Your task to perform on an android device: turn notification dots on Image 0: 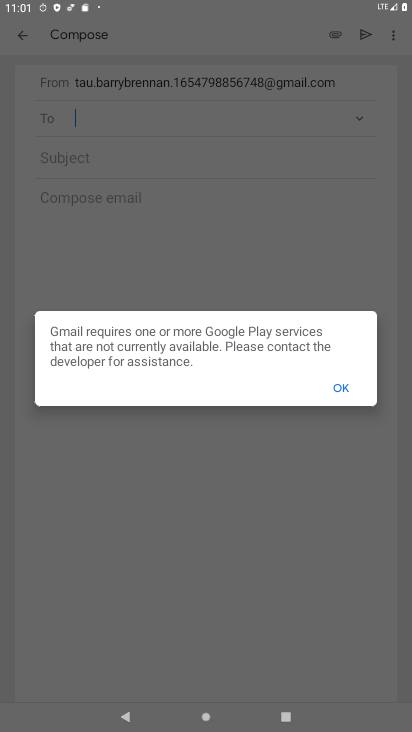
Step 0: click (342, 385)
Your task to perform on an android device: turn notification dots on Image 1: 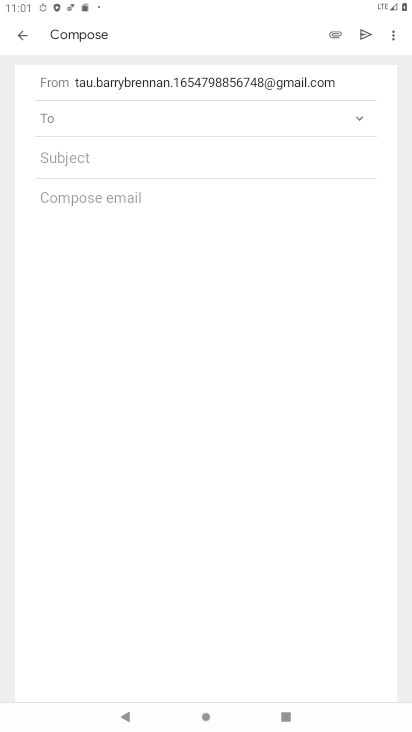
Step 1: click (15, 23)
Your task to perform on an android device: turn notification dots on Image 2: 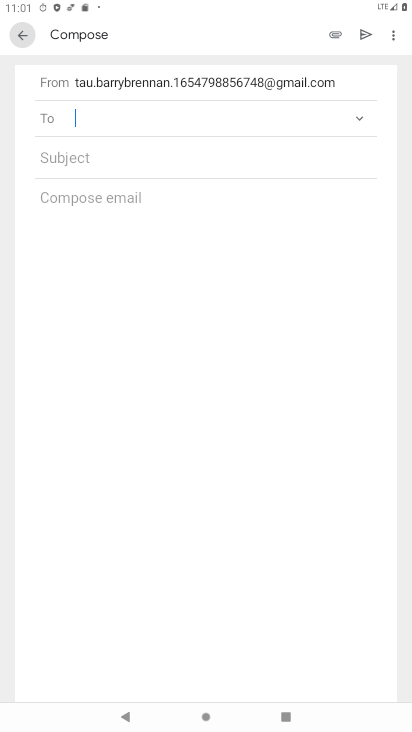
Step 2: click (36, 27)
Your task to perform on an android device: turn notification dots on Image 3: 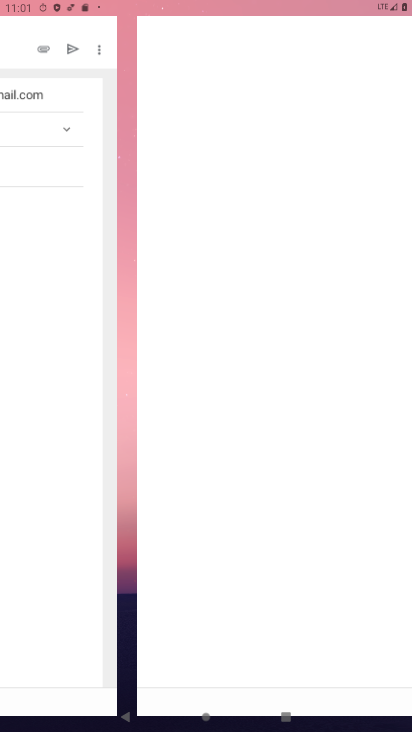
Step 3: click (24, 25)
Your task to perform on an android device: turn notification dots on Image 4: 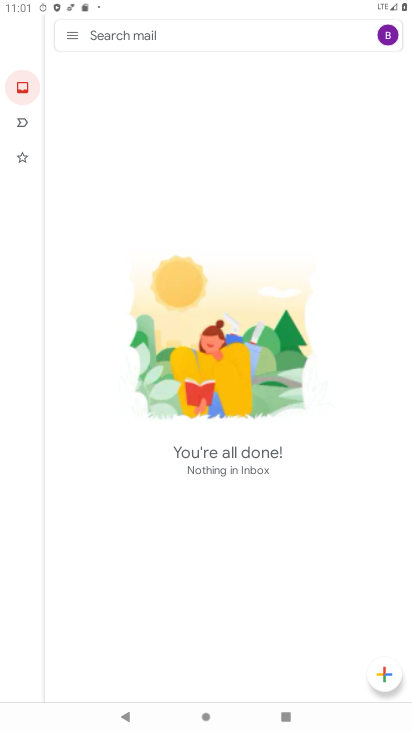
Step 4: press back button
Your task to perform on an android device: turn notification dots on Image 5: 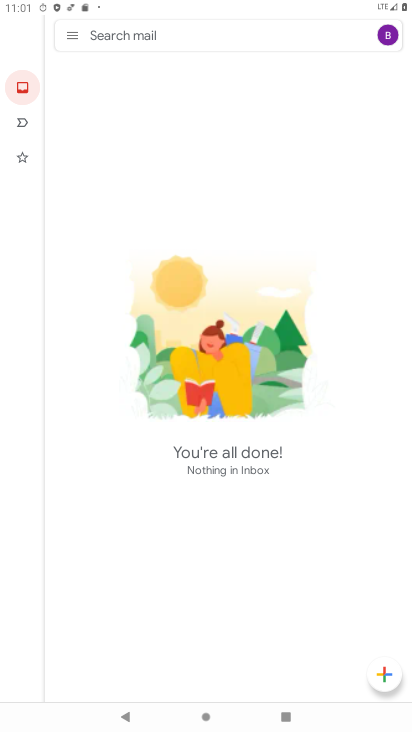
Step 5: press back button
Your task to perform on an android device: turn notification dots on Image 6: 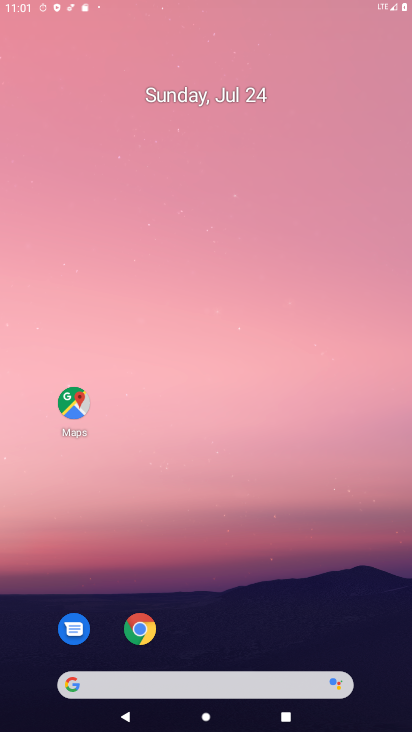
Step 6: press back button
Your task to perform on an android device: turn notification dots on Image 7: 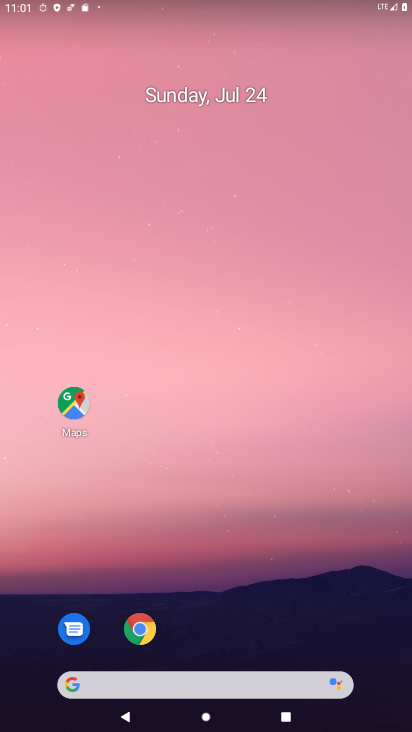
Step 7: drag from (217, 519) to (207, 64)
Your task to perform on an android device: turn notification dots on Image 8: 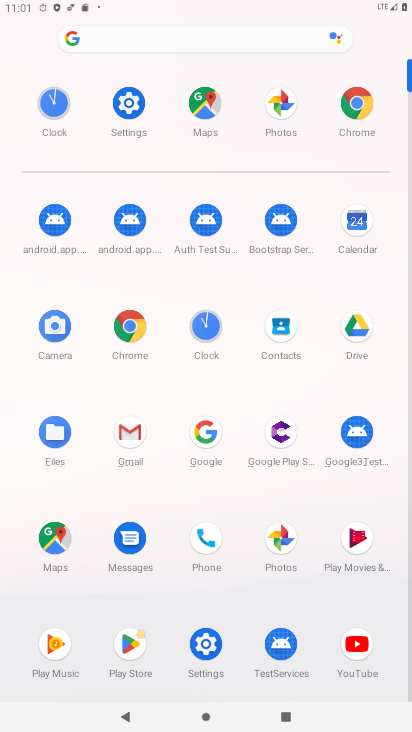
Step 8: click (128, 115)
Your task to perform on an android device: turn notification dots on Image 9: 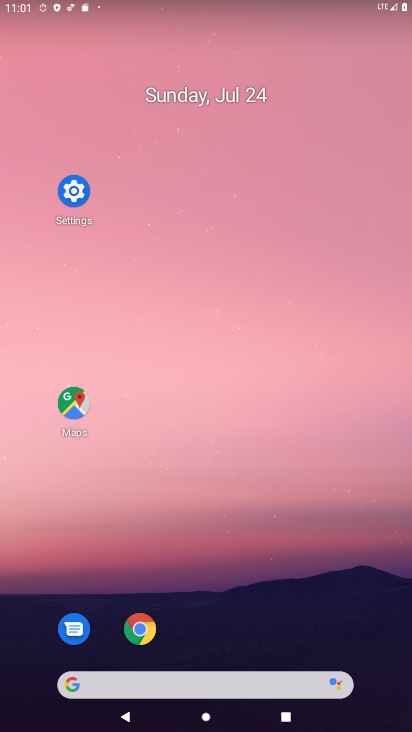
Step 9: click (72, 622)
Your task to perform on an android device: turn notification dots on Image 10: 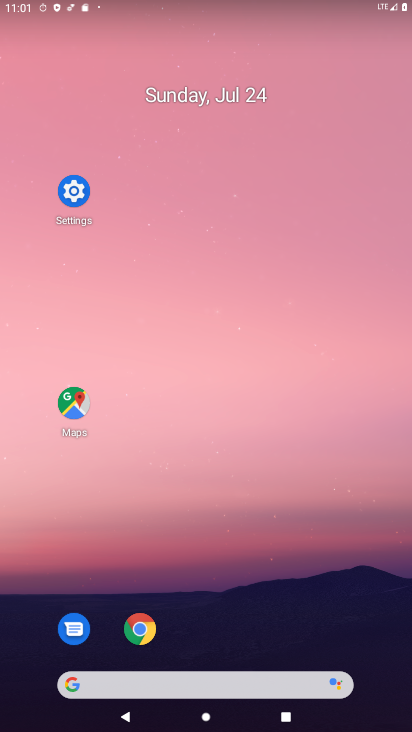
Step 10: click (72, 622)
Your task to perform on an android device: turn notification dots on Image 11: 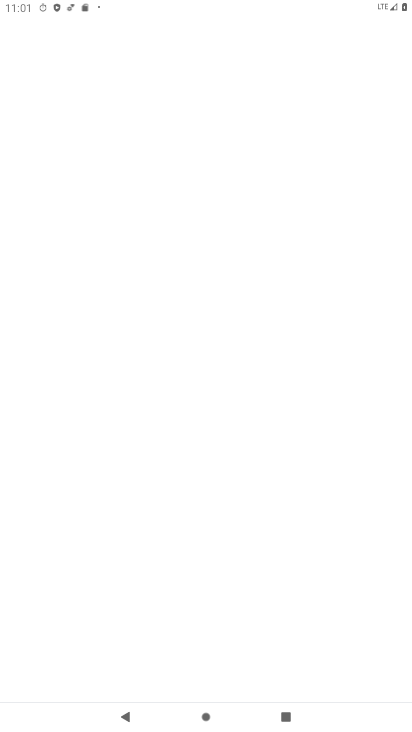
Step 11: click (71, 625)
Your task to perform on an android device: turn notification dots on Image 12: 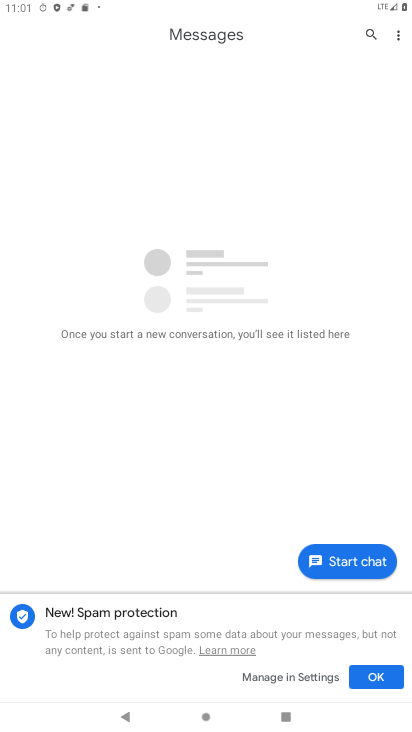
Step 12: click (371, 670)
Your task to perform on an android device: turn notification dots on Image 13: 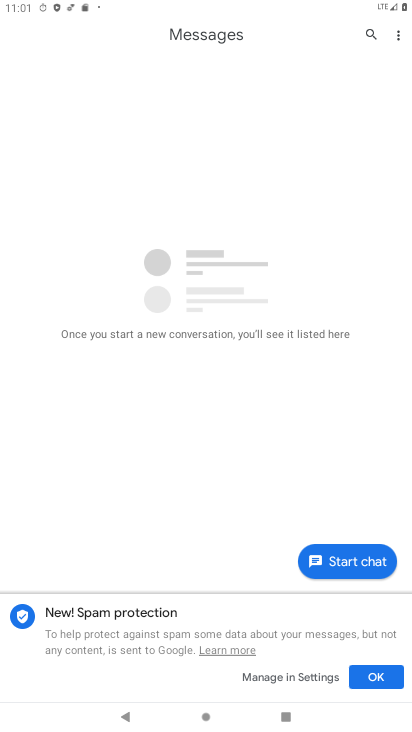
Step 13: click (373, 669)
Your task to perform on an android device: turn notification dots on Image 14: 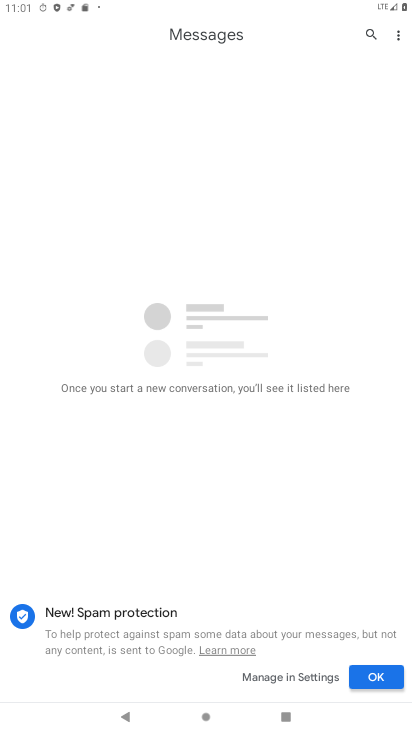
Step 14: click (373, 674)
Your task to perform on an android device: turn notification dots on Image 15: 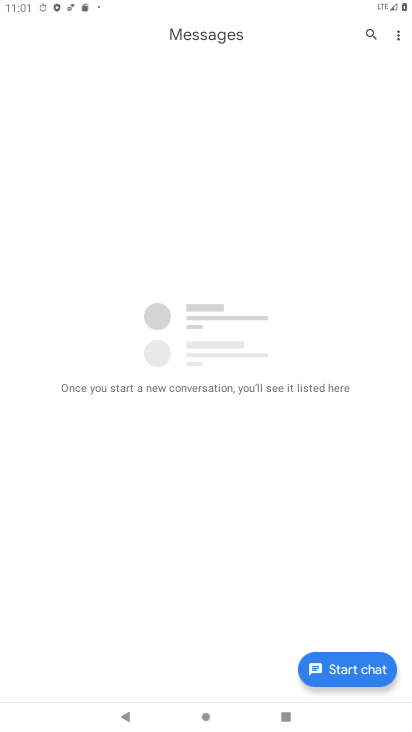
Step 15: click (373, 670)
Your task to perform on an android device: turn notification dots on Image 16: 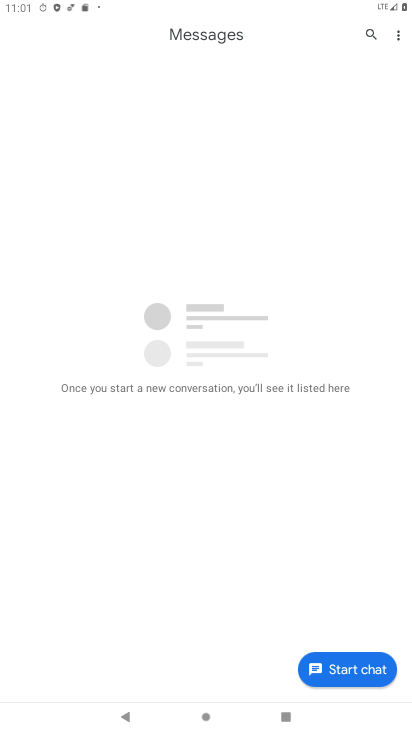
Step 16: click (373, 668)
Your task to perform on an android device: turn notification dots on Image 17: 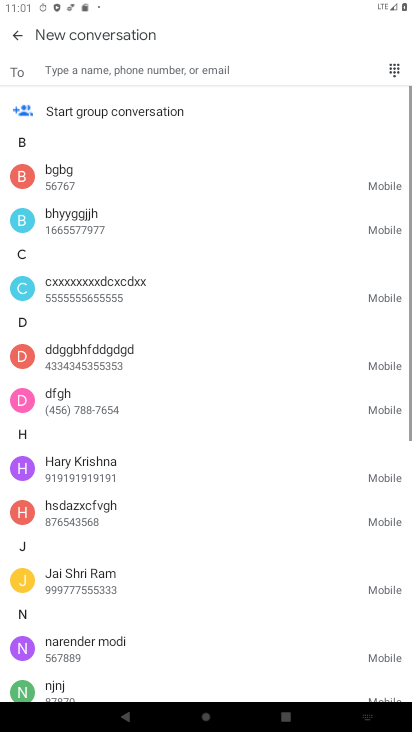
Step 17: click (14, 28)
Your task to perform on an android device: turn notification dots on Image 18: 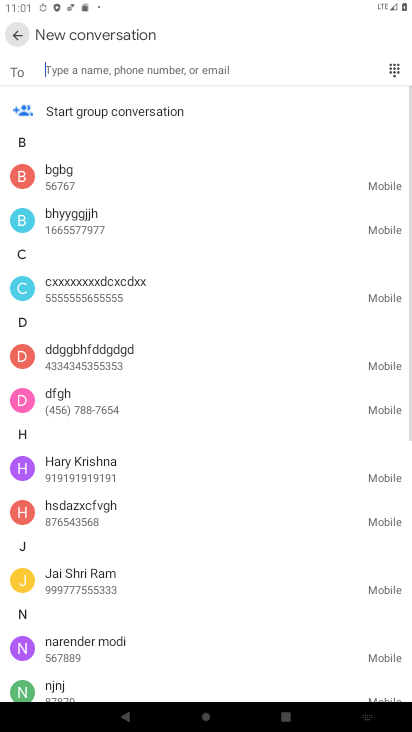
Step 18: click (19, 29)
Your task to perform on an android device: turn notification dots on Image 19: 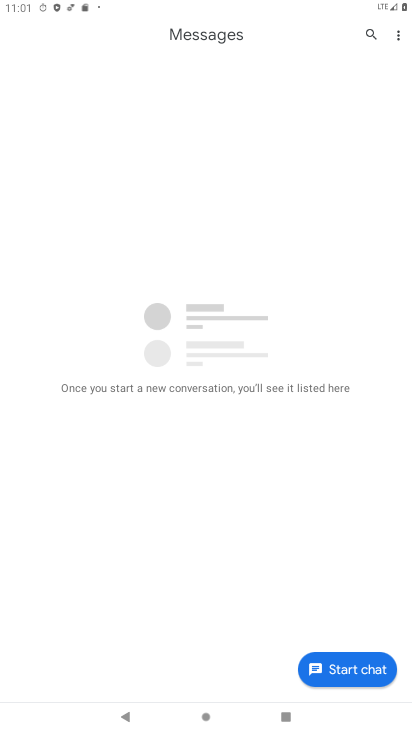
Step 19: press back button
Your task to perform on an android device: turn notification dots on Image 20: 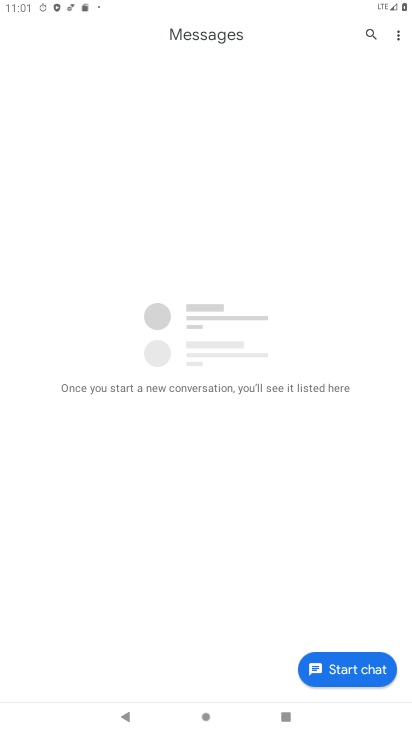
Step 20: press back button
Your task to perform on an android device: turn notification dots on Image 21: 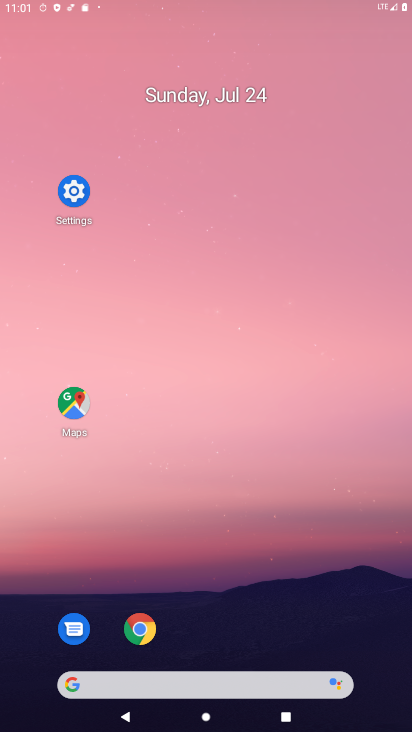
Step 21: press back button
Your task to perform on an android device: turn notification dots on Image 22: 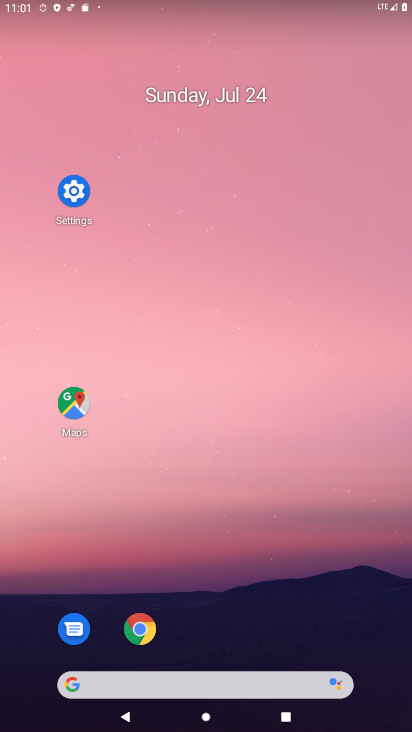
Step 22: press back button
Your task to perform on an android device: turn notification dots on Image 23: 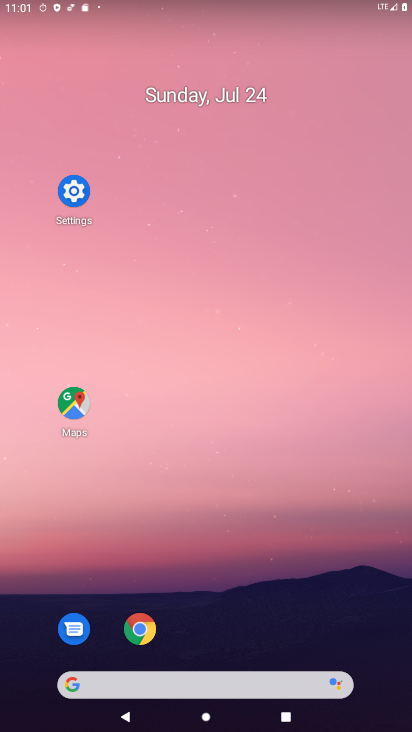
Step 23: drag from (231, 655) to (177, 254)
Your task to perform on an android device: turn notification dots on Image 24: 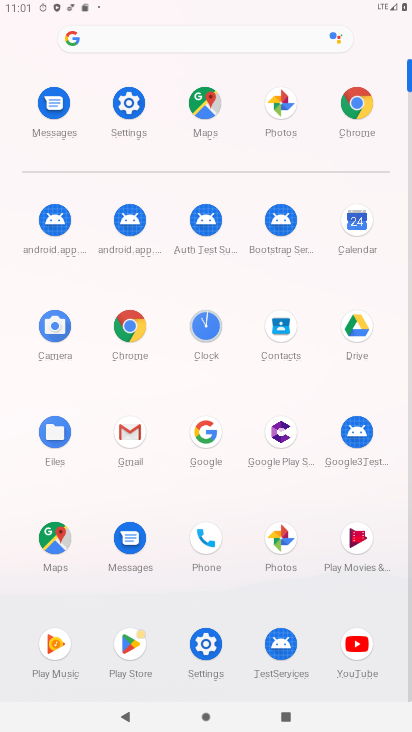
Step 24: click (210, 640)
Your task to perform on an android device: turn notification dots on Image 25: 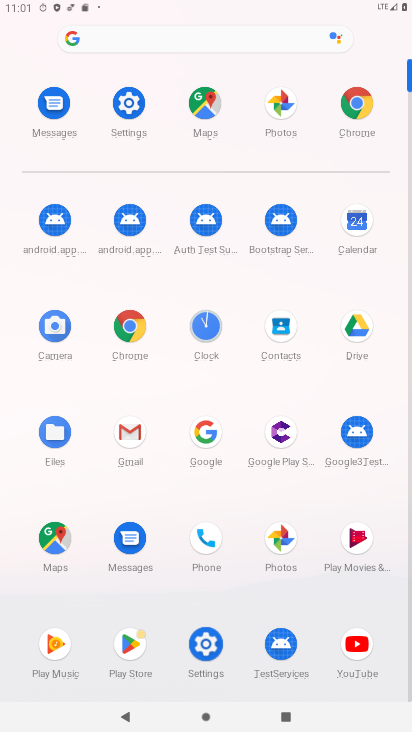
Step 25: click (208, 633)
Your task to perform on an android device: turn notification dots on Image 26: 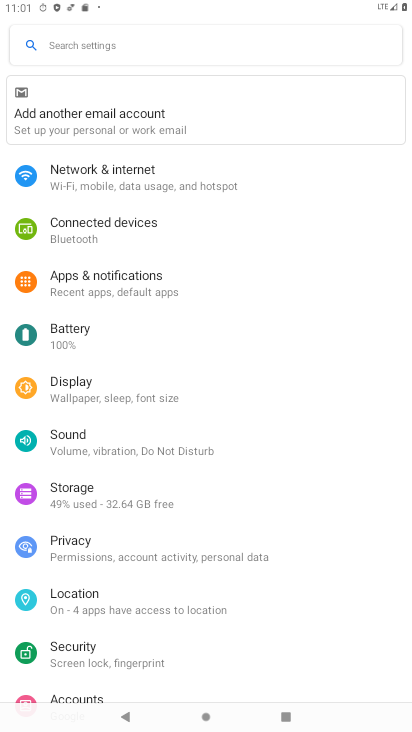
Step 26: click (96, 266)
Your task to perform on an android device: turn notification dots on Image 27: 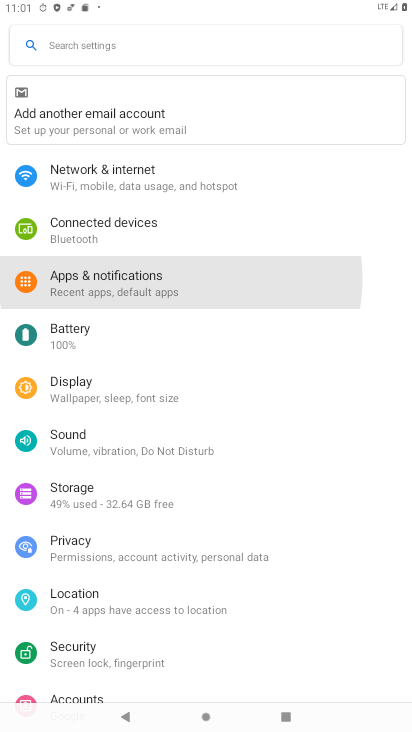
Step 27: click (100, 264)
Your task to perform on an android device: turn notification dots on Image 28: 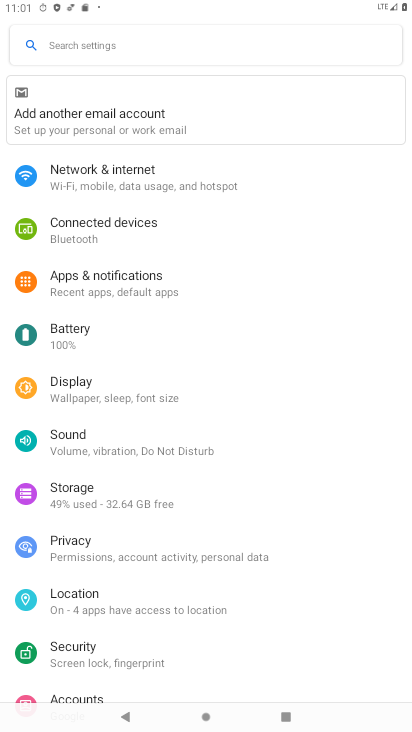
Step 28: click (100, 271)
Your task to perform on an android device: turn notification dots on Image 29: 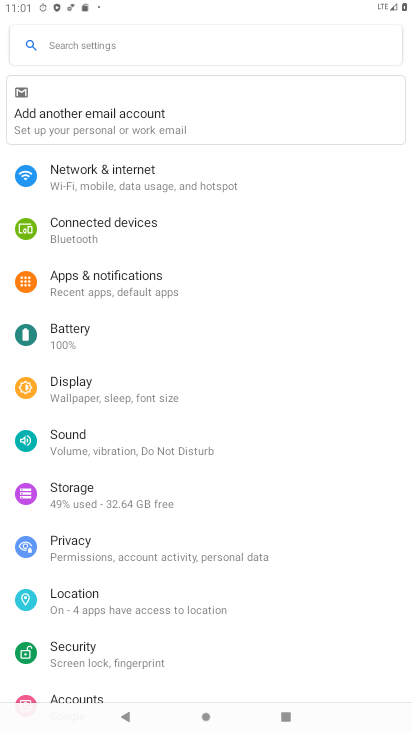
Step 29: click (107, 274)
Your task to perform on an android device: turn notification dots on Image 30: 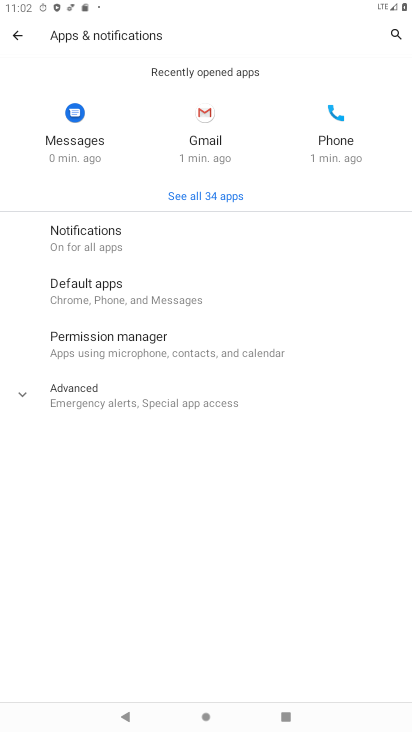
Step 30: click (83, 241)
Your task to perform on an android device: turn notification dots on Image 31: 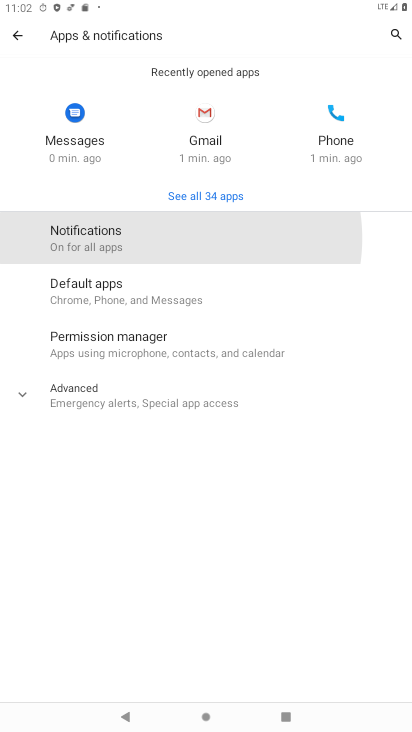
Step 31: click (83, 241)
Your task to perform on an android device: turn notification dots on Image 32: 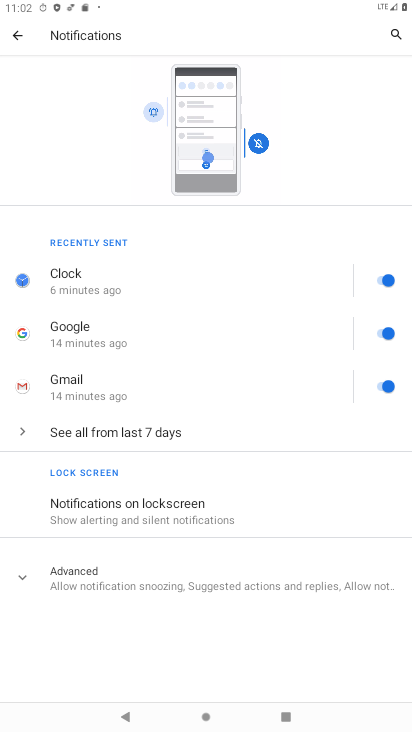
Step 32: click (126, 579)
Your task to perform on an android device: turn notification dots on Image 33: 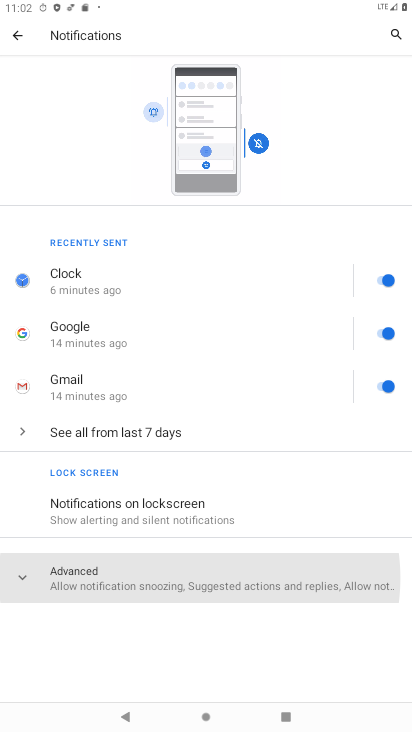
Step 33: click (123, 582)
Your task to perform on an android device: turn notification dots on Image 34: 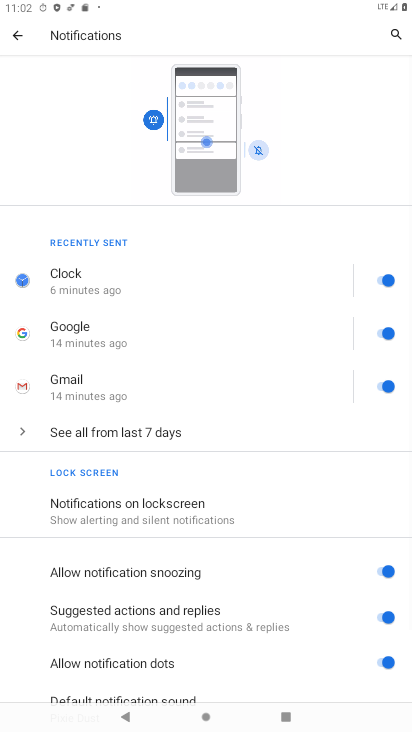
Step 34: click (382, 656)
Your task to perform on an android device: turn notification dots on Image 35: 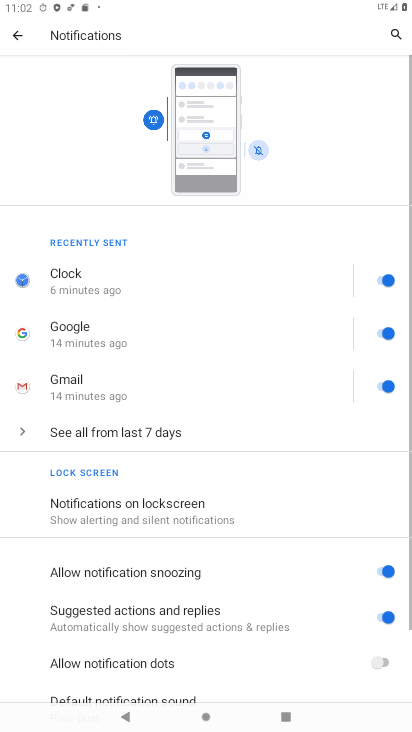
Step 35: click (377, 648)
Your task to perform on an android device: turn notification dots on Image 36: 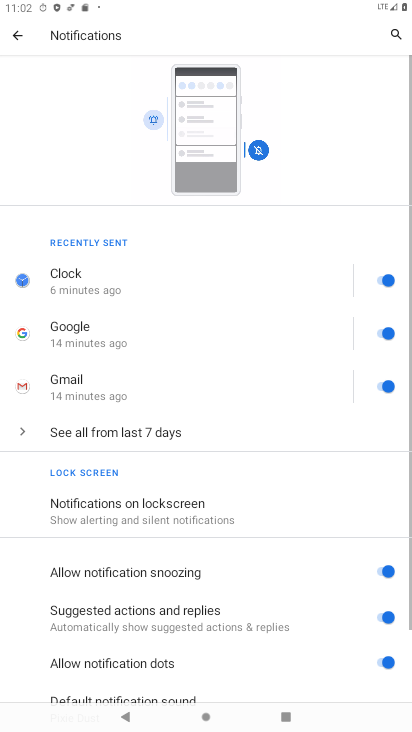
Step 36: task complete